Your task to perform on an android device: toggle sleep mode Image 0: 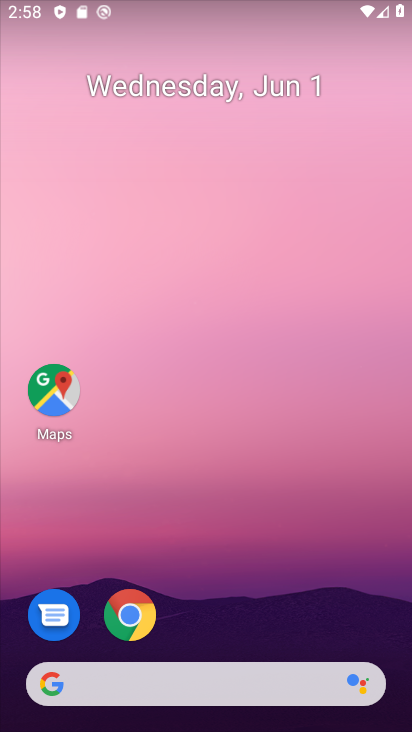
Step 0: drag from (183, 659) to (211, 37)
Your task to perform on an android device: toggle sleep mode Image 1: 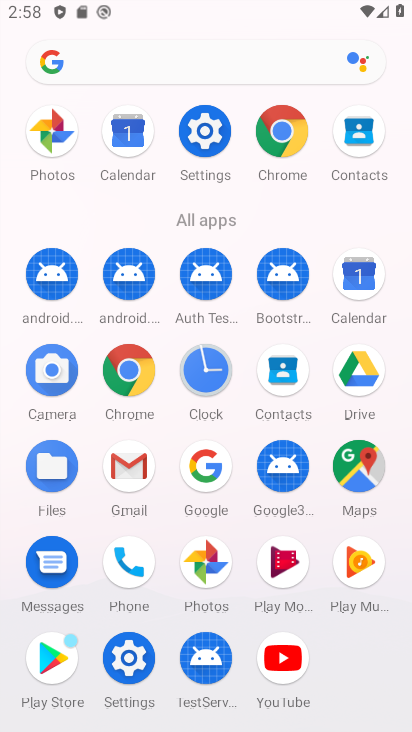
Step 1: click (220, 131)
Your task to perform on an android device: toggle sleep mode Image 2: 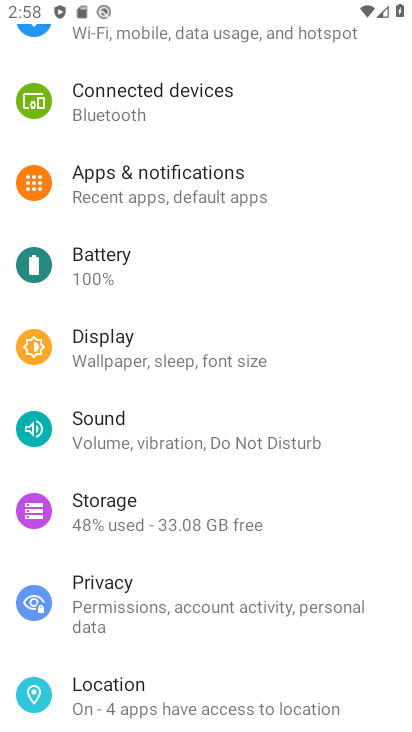
Step 2: drag from (215, 172) to (197, 496)
Your task to perform on an android device: toggle sleep mode Image 3: 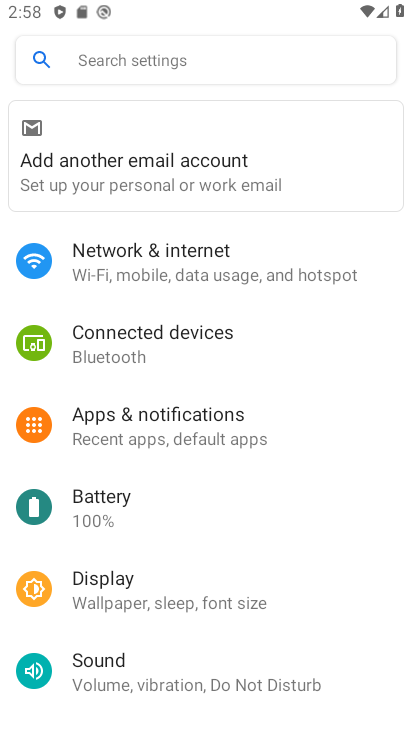
Step 3: click (246, 598)
Your task to perform on an android device: toggle sleep mode Image 4: 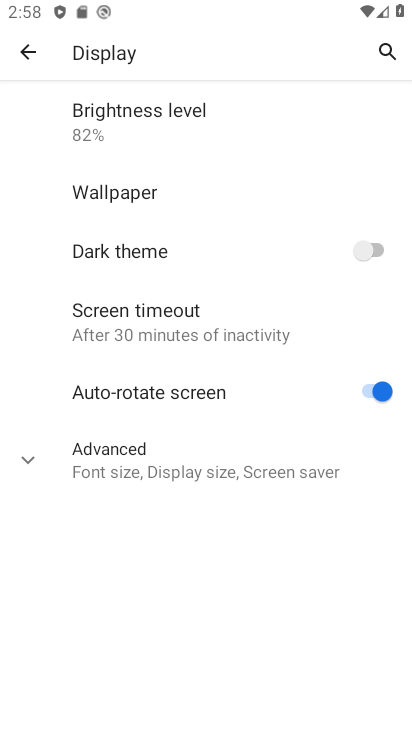
Step 4: task complete